Your task to perform on an android device: allow cookies in the chrome app Image 0: 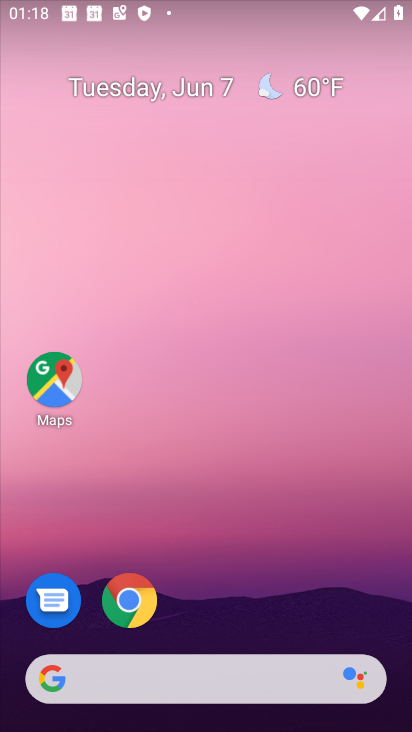
Step 0: click (129, 595)
Your task to perform on an android device: allow cookies in the chrome app Image 1: 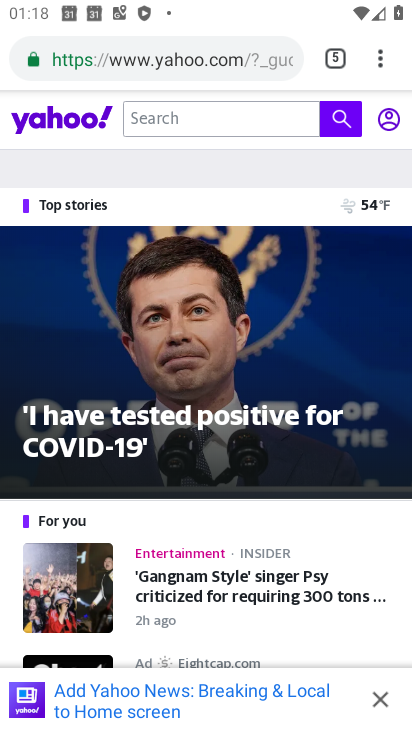
Step 1: click (380, 63)
Your task to perform on an android device: allow cookies in the chrome app Image 2: 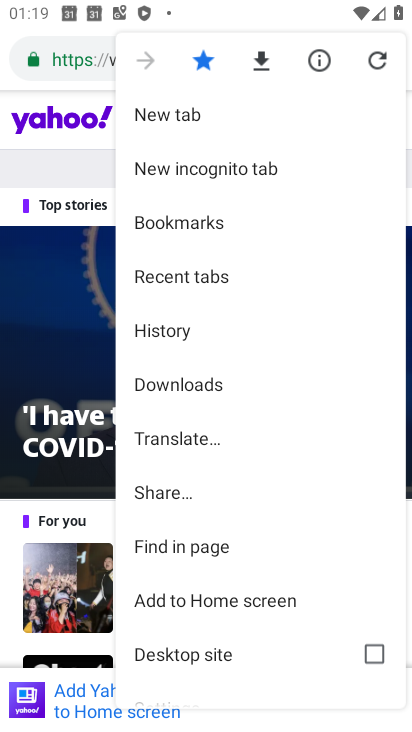
Step 2: drag from (206, 662) to (206, 263)
Your task to perform on an android device: allow cookies in the chrome app Image 3: 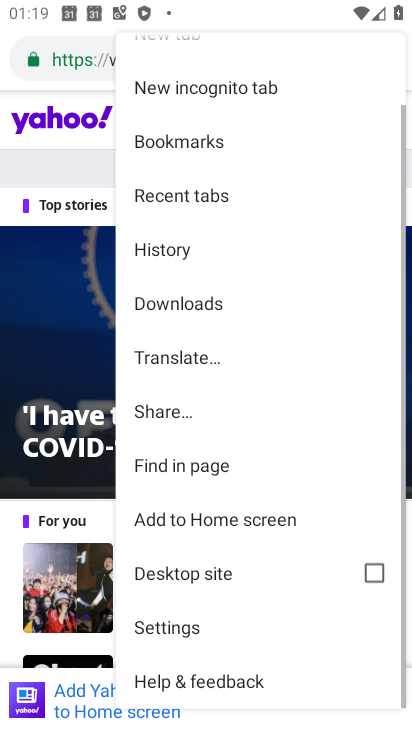
Step 3: click (177, 619)
Your task to perform on an android device: allow cookies in the chrome app Image 4: 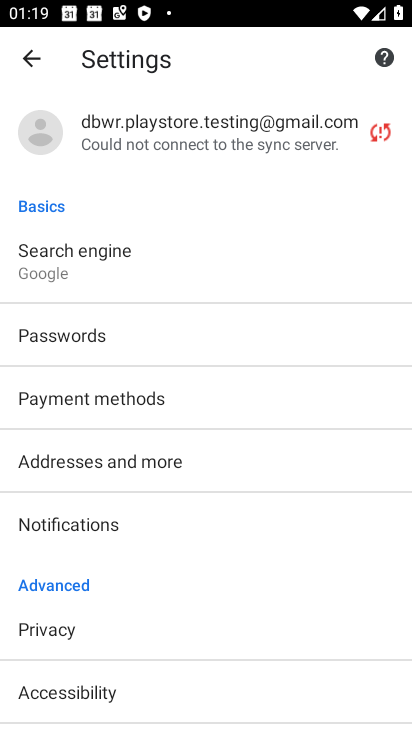
Step 4: drag from (142, 706) to (120, 209)
Your task to perform on an android device: allow cookies in the chrome app Image 5: 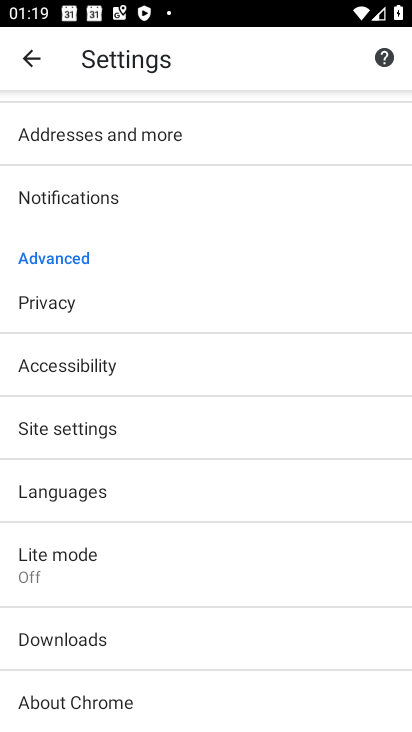
Step 5: click (91, 424)
Your task to perform on an android device: allow cookies in the chrome app Image 6: 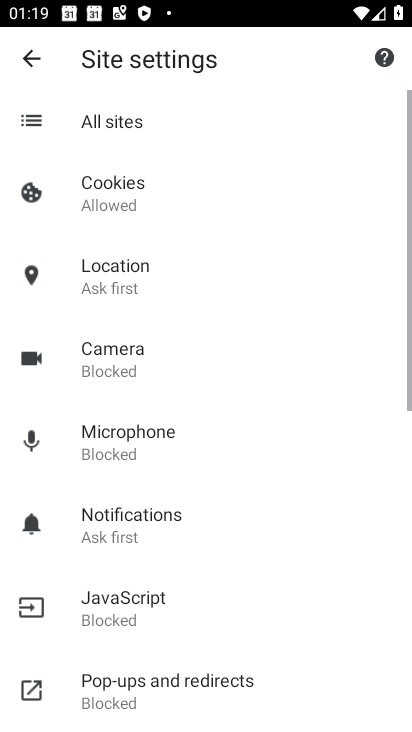
Step 6: click (104, 188)
Your task to perform on an android device: allow cookies in the chrome app Image 7: 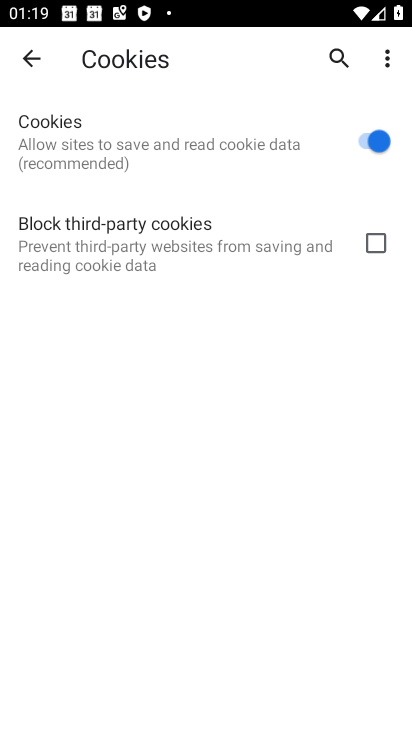
Step 7: task complete